Your task to perform on an android device: toggle javascript in the chrome app Image 0: 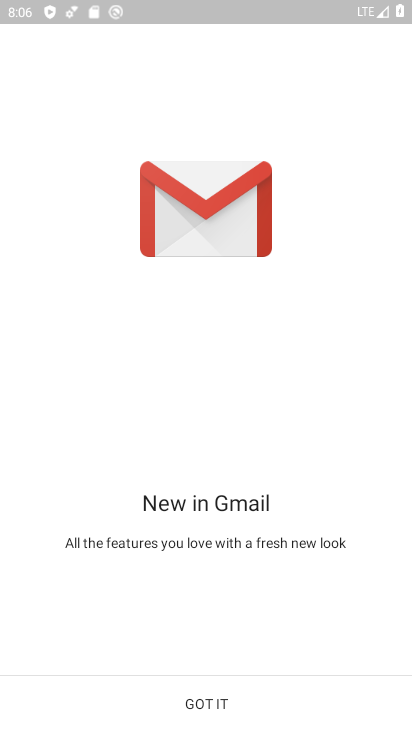
Step 0: press home button
Your task to perform on an android device: toggle javascript in the chrome app Image 1: 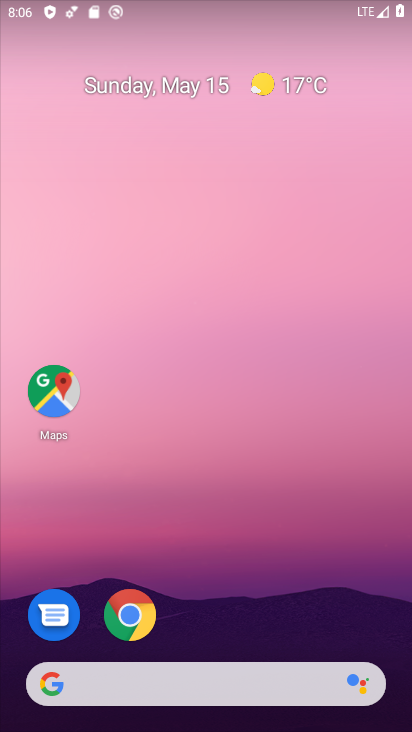
Step 1: click (122, 619)
Your task to perform on an android device: toggle javascript in the chrome app Image 2: 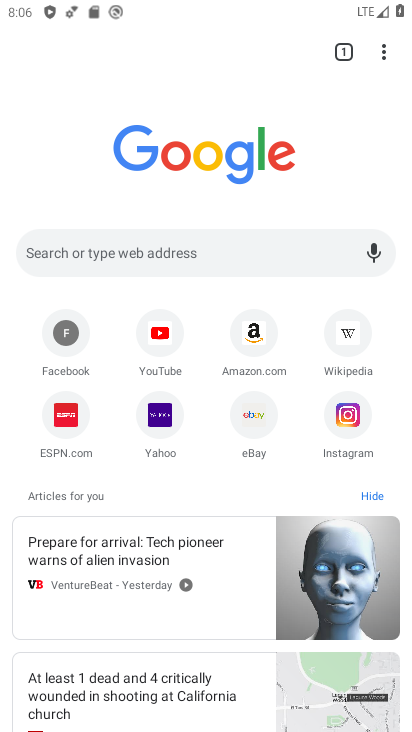
Step 2: click (387, 59)
Your task to perform on an android device: toggle javascript in the chrome app Image 3: 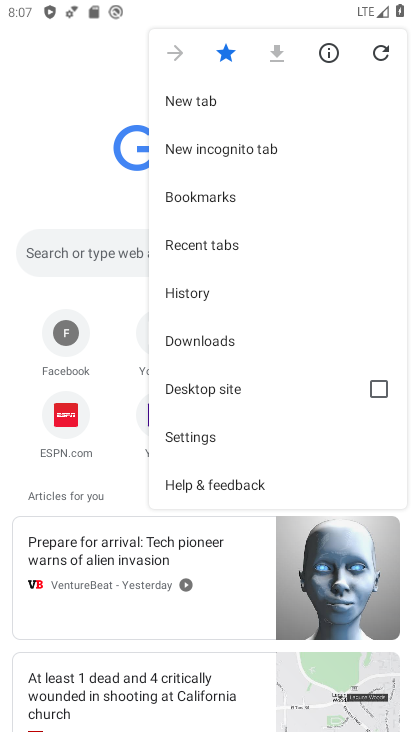
Step 3: click (205, 437)
Your task to perform on an android device: toggle javascript in the chrome app Image 4: 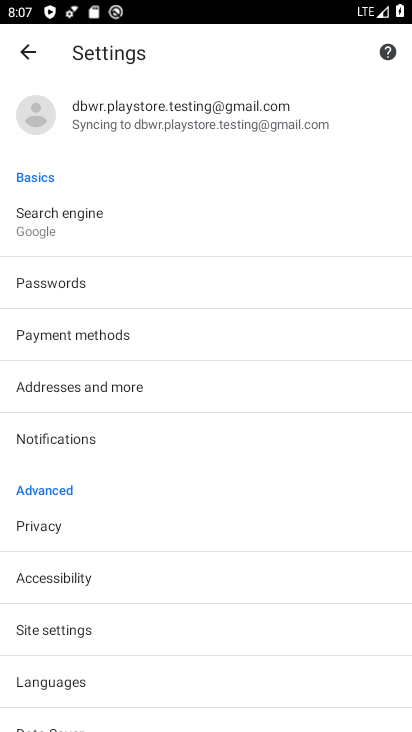
Step 4: click (86, 633)
Your task to perform on an android device: toggle javascript in the chrome app Image 5: 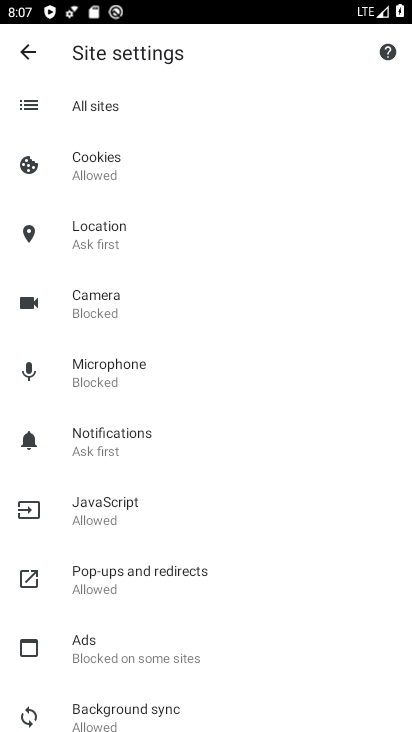
Step 5: click (154, 512)
Your task to perform on an android device: toggle javascript in the chrome app Image 6: 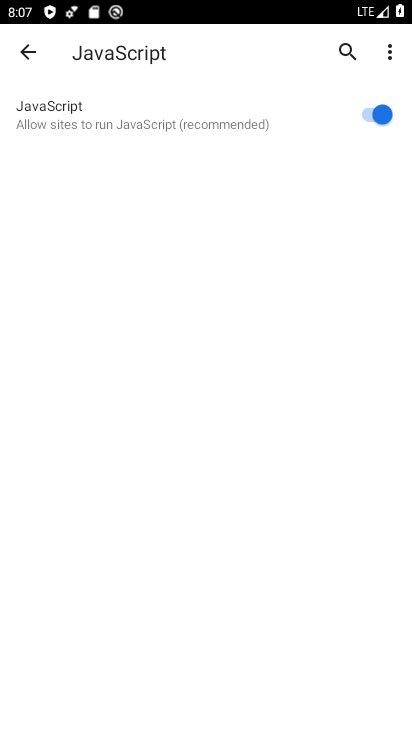
Step 6: click (382, 110)
Your task to perform on an android device: toggle javascript in the chrome app Image 7: 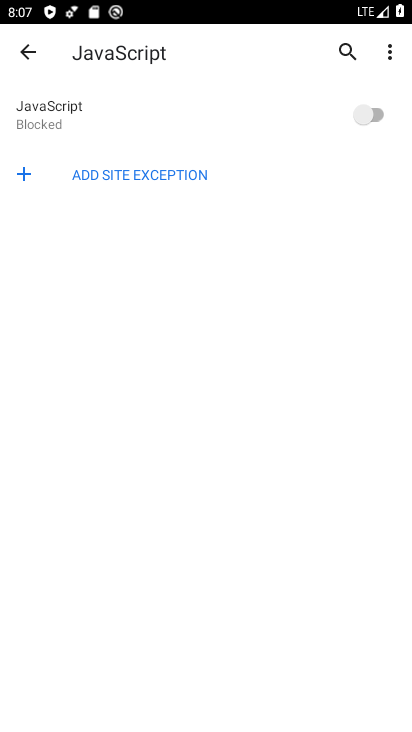
Step 7: task complete